Your task to perform on an android device: remove spam from my inbox in the gmail app Image 0: 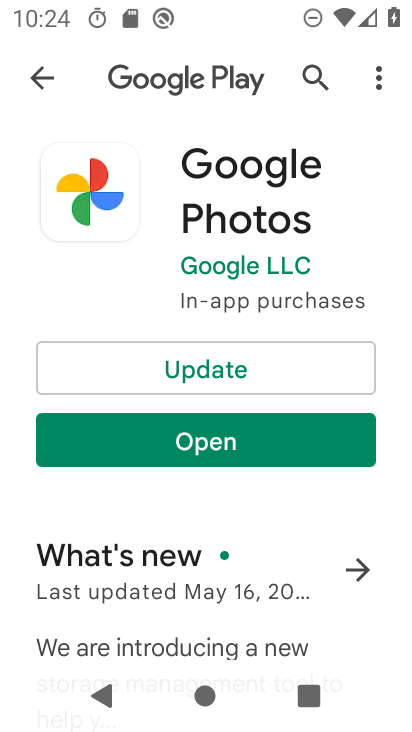
Step 0: press home button
Your task to perform on an android device: remove spam from my inbox in the gmail app Image 1: 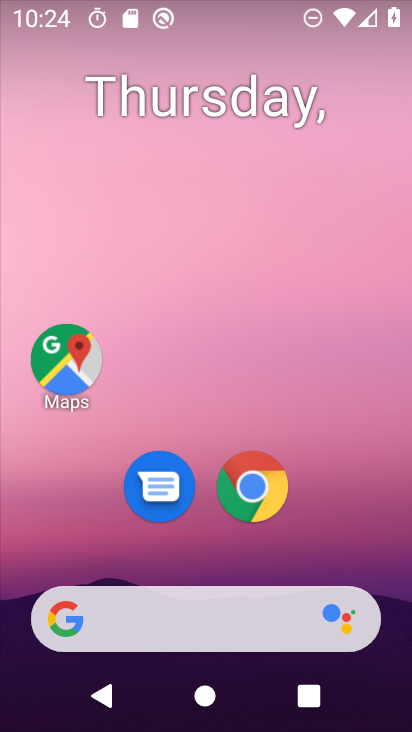
Step 1: drag from (201, 555) to (331, 24)
Your task to perform on an android device: remove spam from my inbox in the gmail app Image 2: 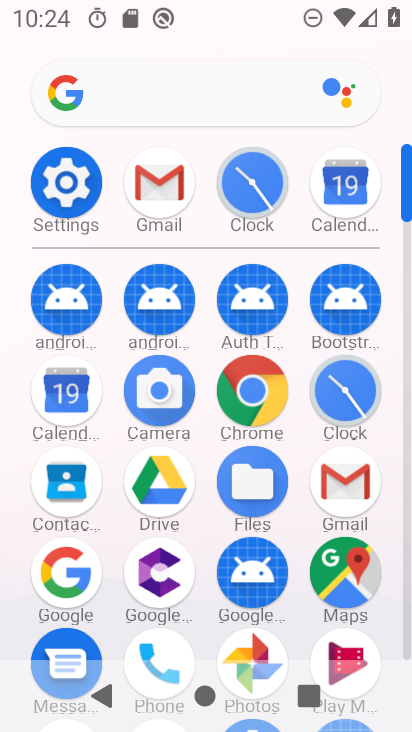
Step 2: click (160, 179)
Your task to perform on an android device: remove spam from my inbox in the gmail app Image 3: 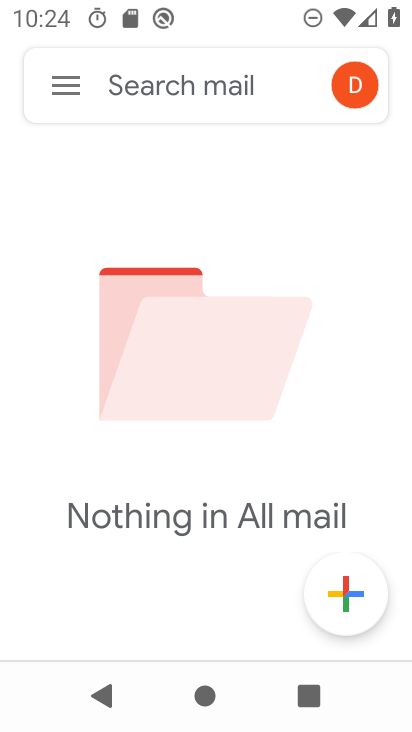
Step 3: click (59, 94)
Your task to perform on an android device: remove spam from my inbox in the gmail app Image 4: 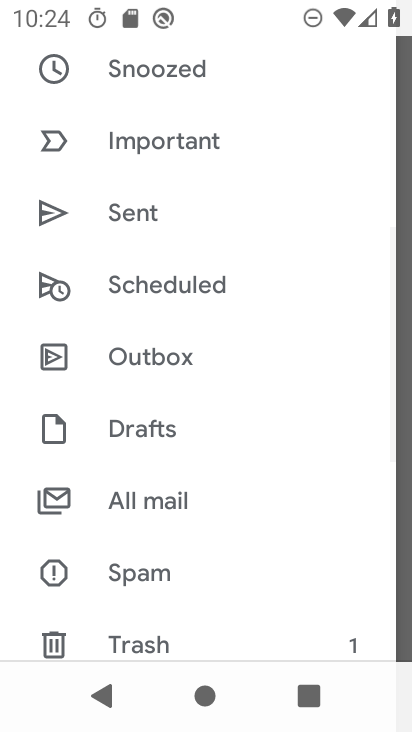
Step 4: click (155, 560)
Your task to perform on an android device: remove spam from my inbox in the gmail app Image 5: 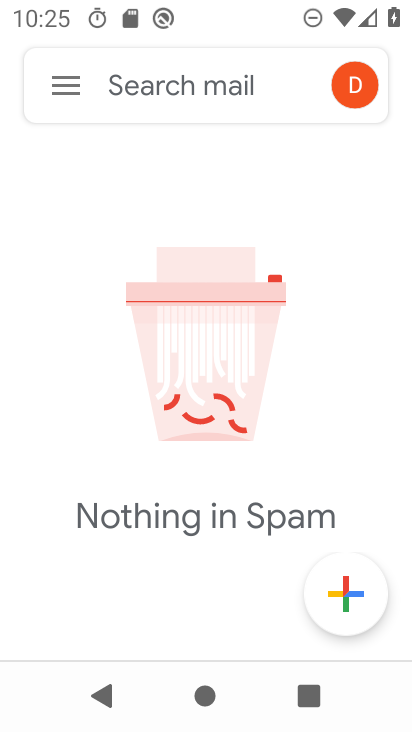
Step 5: task complete